Your task to perform on an android device: star an email in the gmail app Image 0: 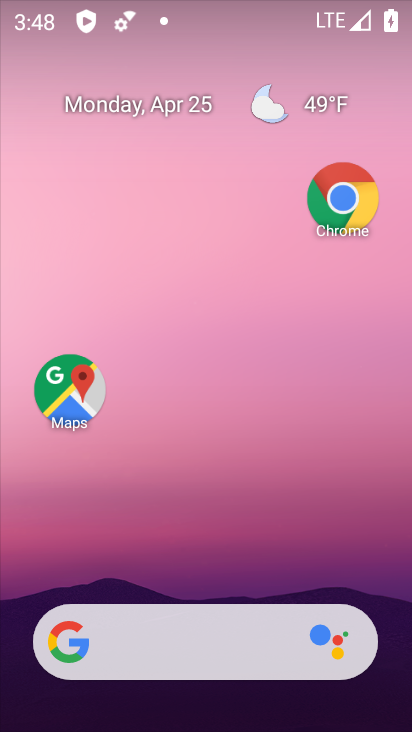
Step 0: drag from (196, 600) to (305, 282)
Your task to perform on an android device: star an email in the gmail app Image 1: 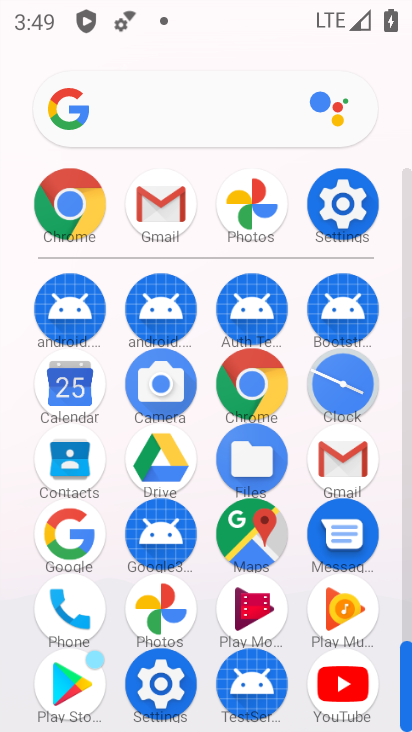
Step 1: click (165, 211)
Your task to perform on an android device: star an email in the gmail app Image 2: 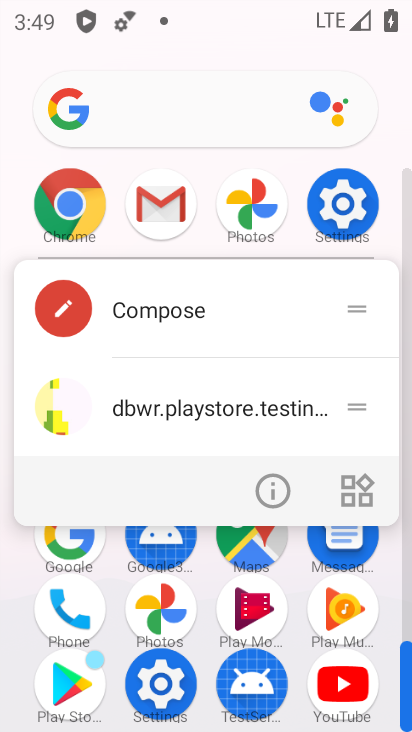
Step 2: click (168, 222)
Your task to perform on an android device: star an email in the gmail app Image 3: 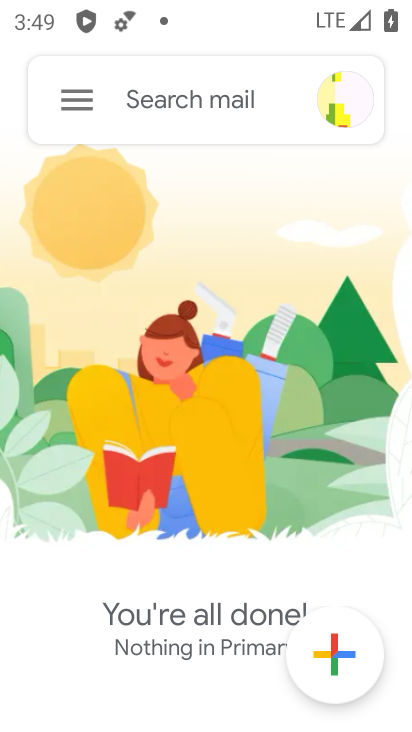
Step 3: click (67, 104)
Your task to perform on an android device: star an email in the gmail app Image 4: 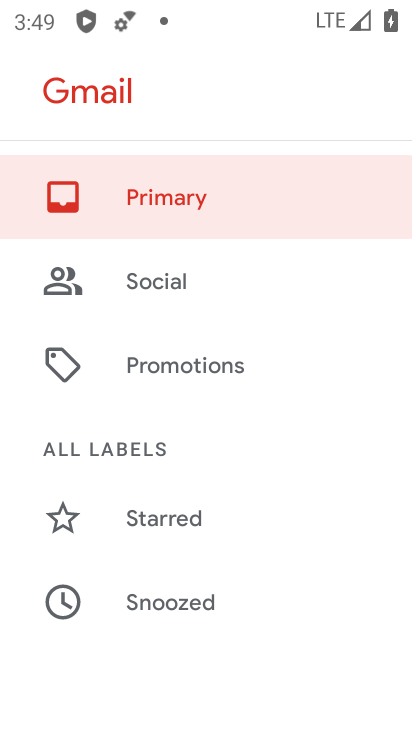
Step 4: drag from (241, 543) to (356, 115)
Your task to perform on an android device: star an email in the gmail app Image 5: 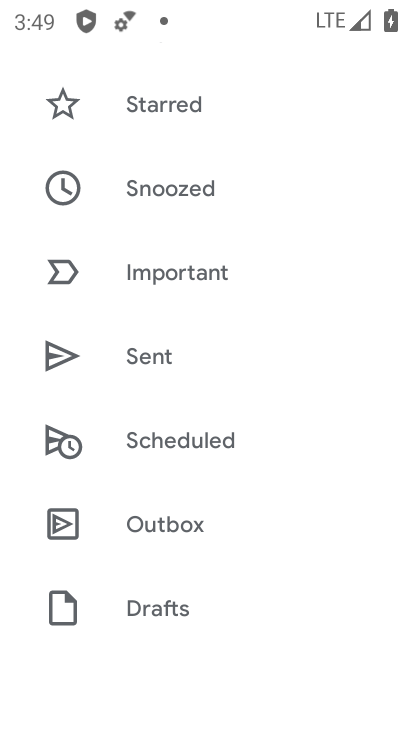
Step 5: drag from (316, 494) to (393, 204)
Your task to perform on an android device: star an email in the gmail app Image 6: 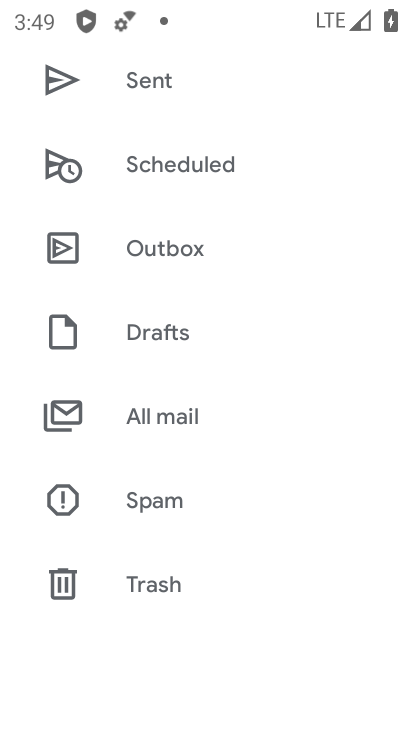
Step 6: click (180, 405)
Your task to perform on an android device: star an email in the gmail app Image 7: 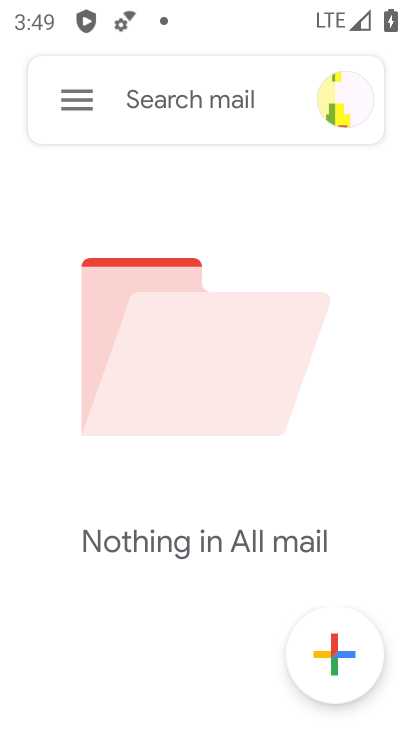
Step 7: task complete